Your task to perform on an android device: Open Yahoo.com Image 0: 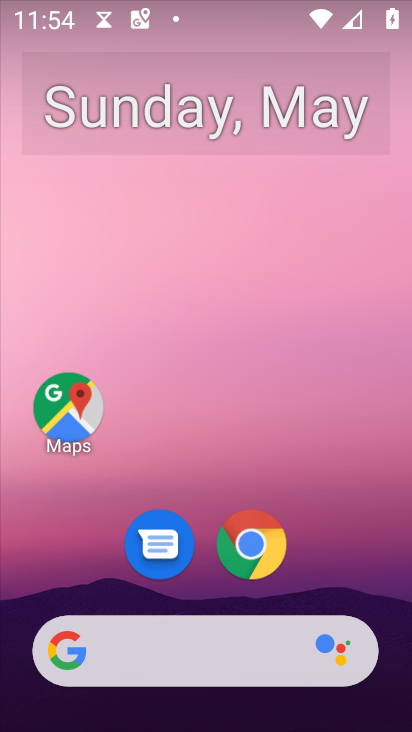
Step 0: click (254, 532)
Your task to perform on an android device: Open Yahoo.com Image 1: 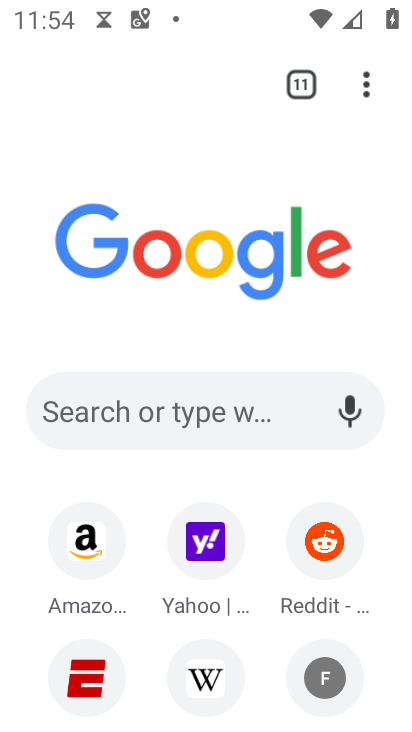
Step 1: click (193, 535)
Your task to perform on an android device: Open Yahoo.com Image 2: 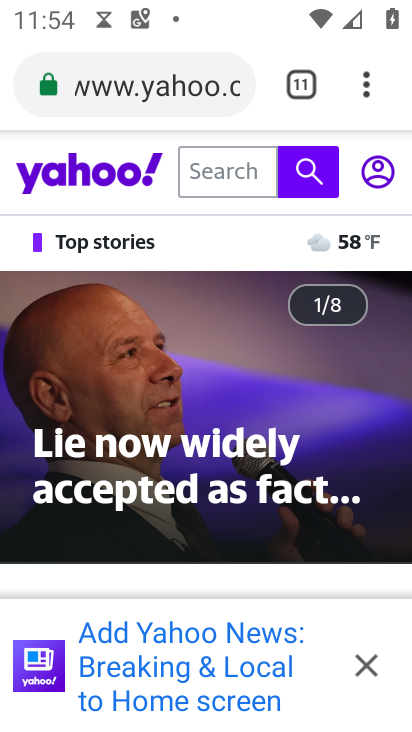
Step 2: task complete